Your task to perform on an android device: Search for acer nitro on costco.com, select the first entry, add it to the cart, then select checkout. Image 0: 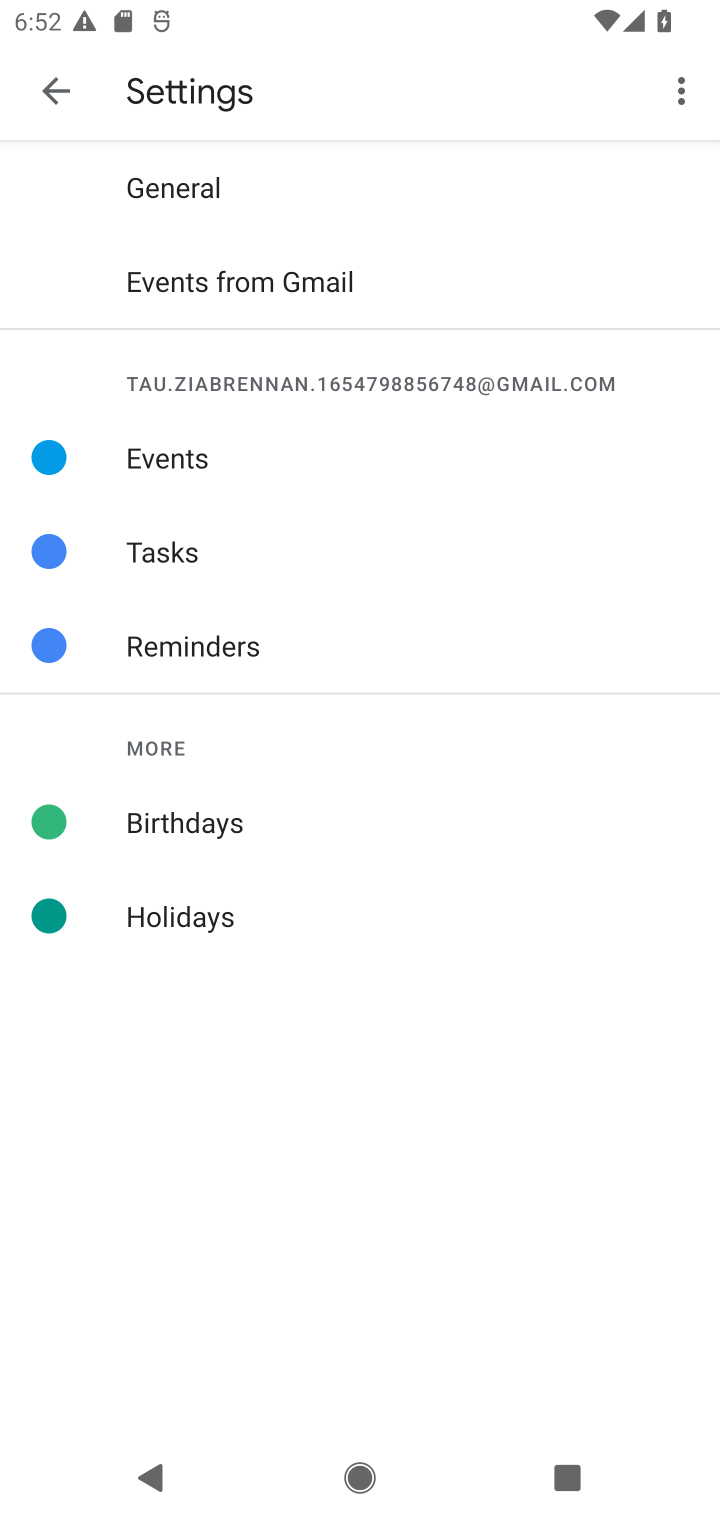
Step 0: press home button
Your task to perform on an android device: Search for acer nitro on costco.com, select the first entry, add it to the cart, then select checkout. Image 1: 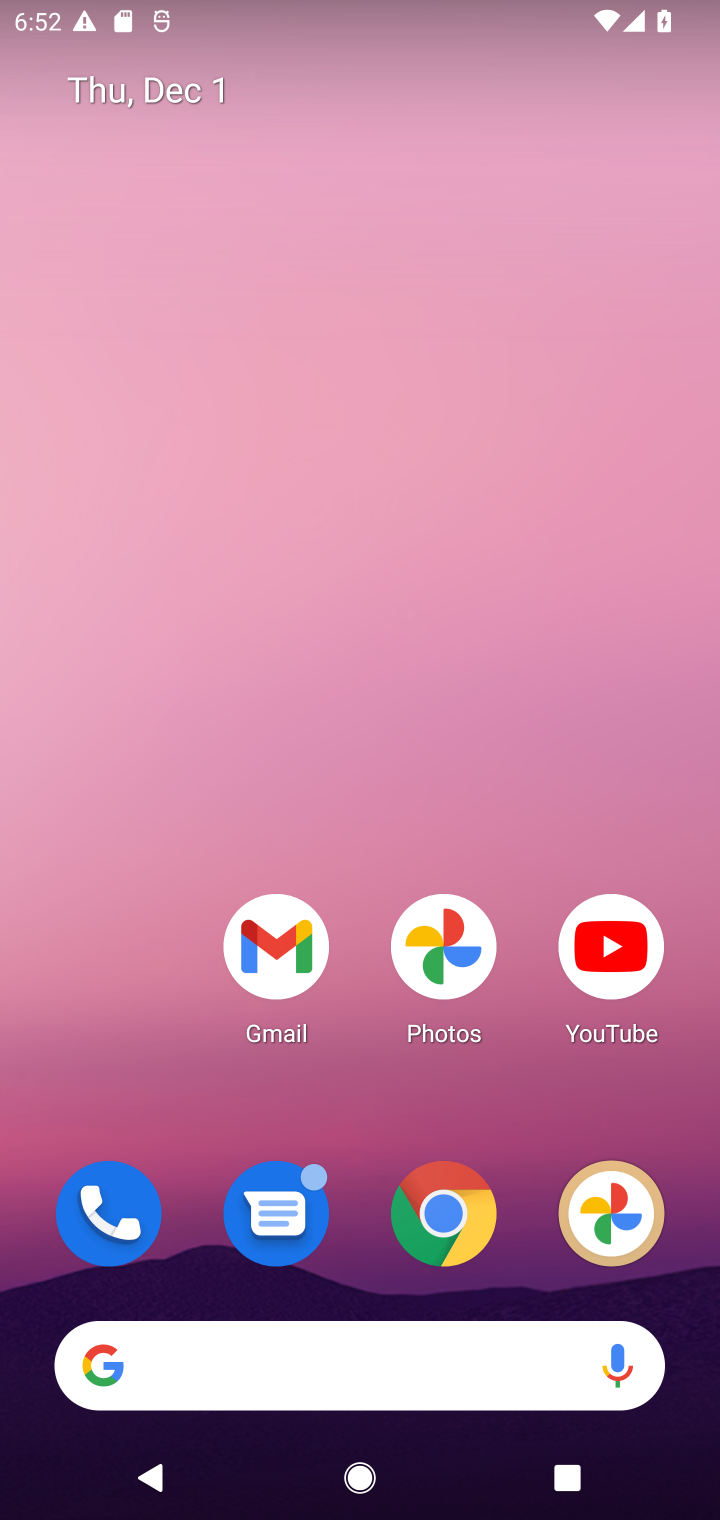
Step 1: click (431, 1363)
Your task to perform on an android device: Search for acer nitro on costco.com, select the first entry, add it to the cart, then select checkout. Image 2: 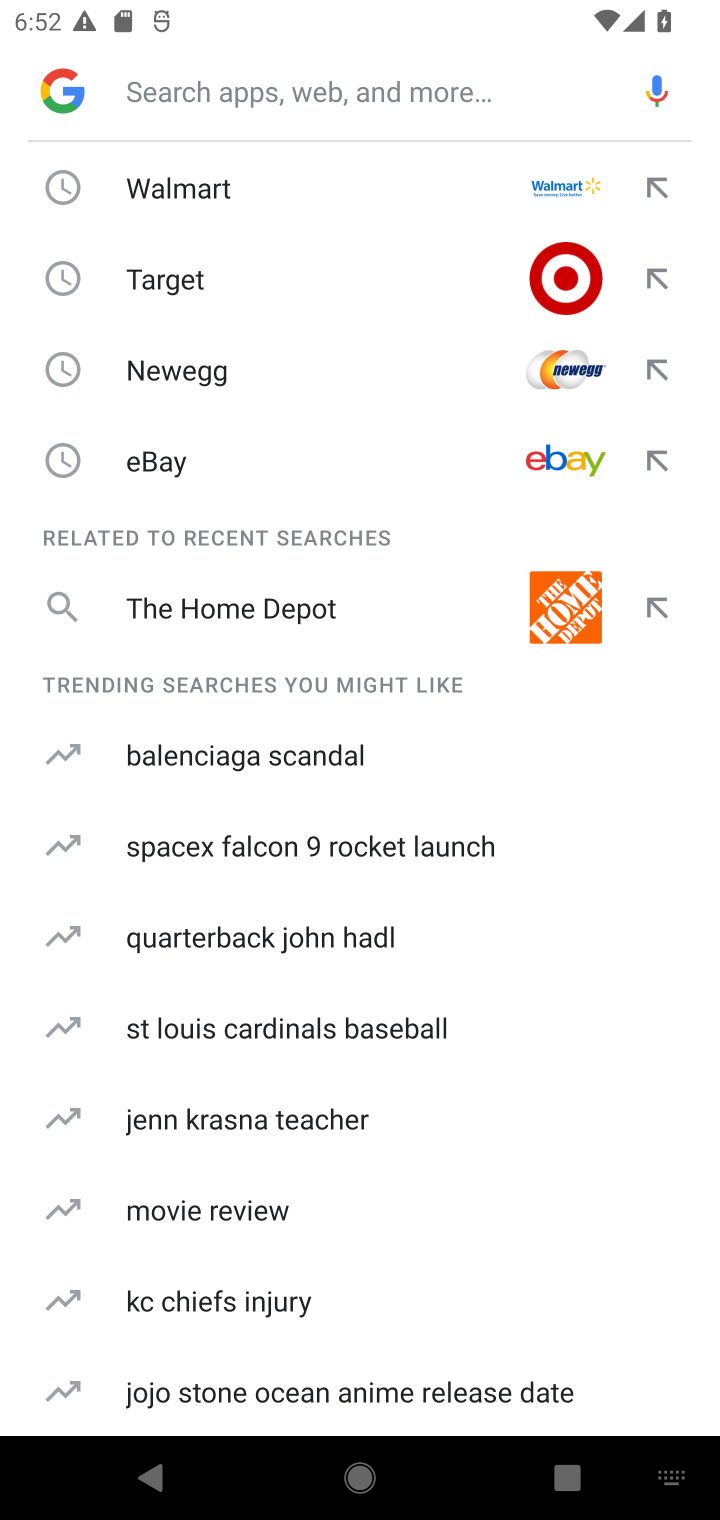
Step 2: type "costco"
Your task to perform on an android device: Search for acer nitro on costco.com, select the first entry, add it to the cart, then select checkout. Image 3: 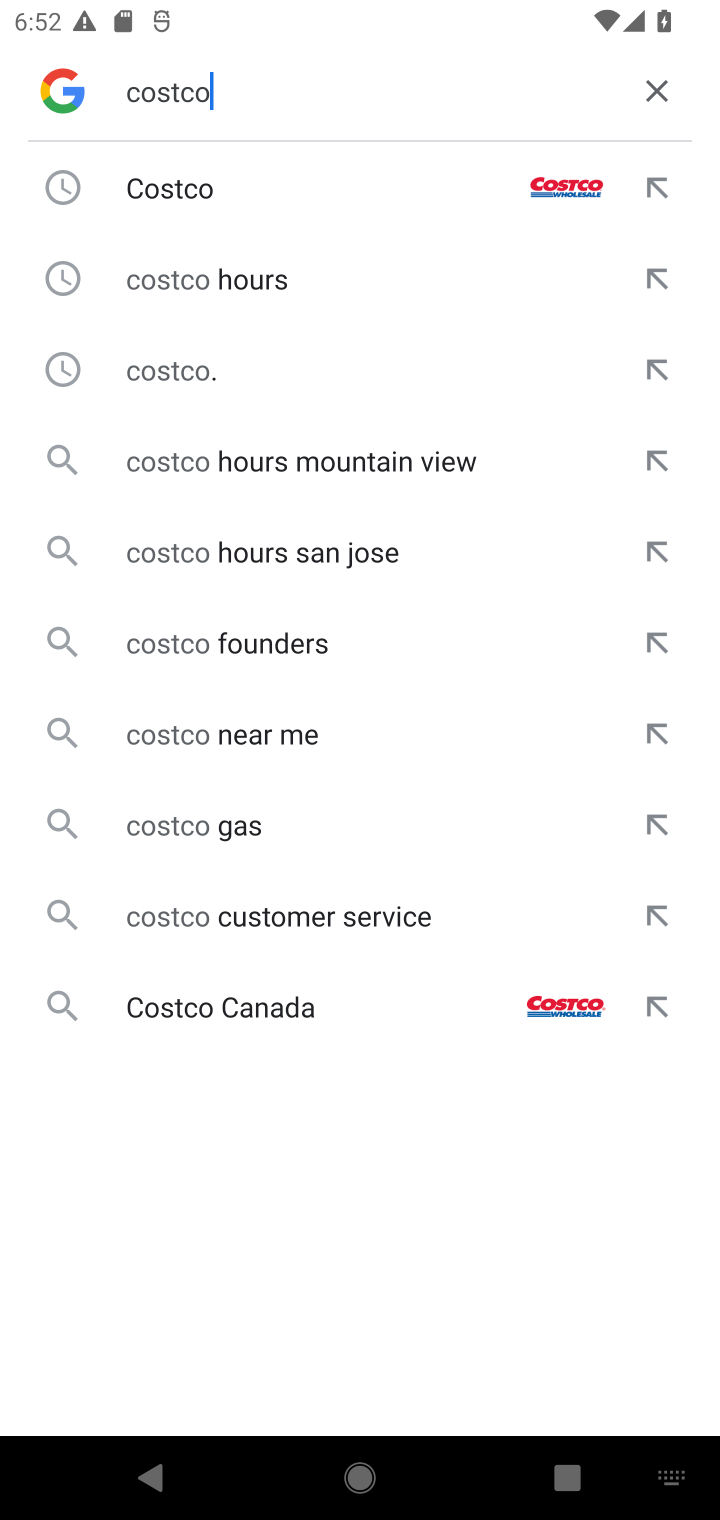
Step 3: click (186, 201)
Your task to perform on an android device: Search for acer nitro on costco.com, select the first entry, add it to the cart, then select checkout. Image 4: 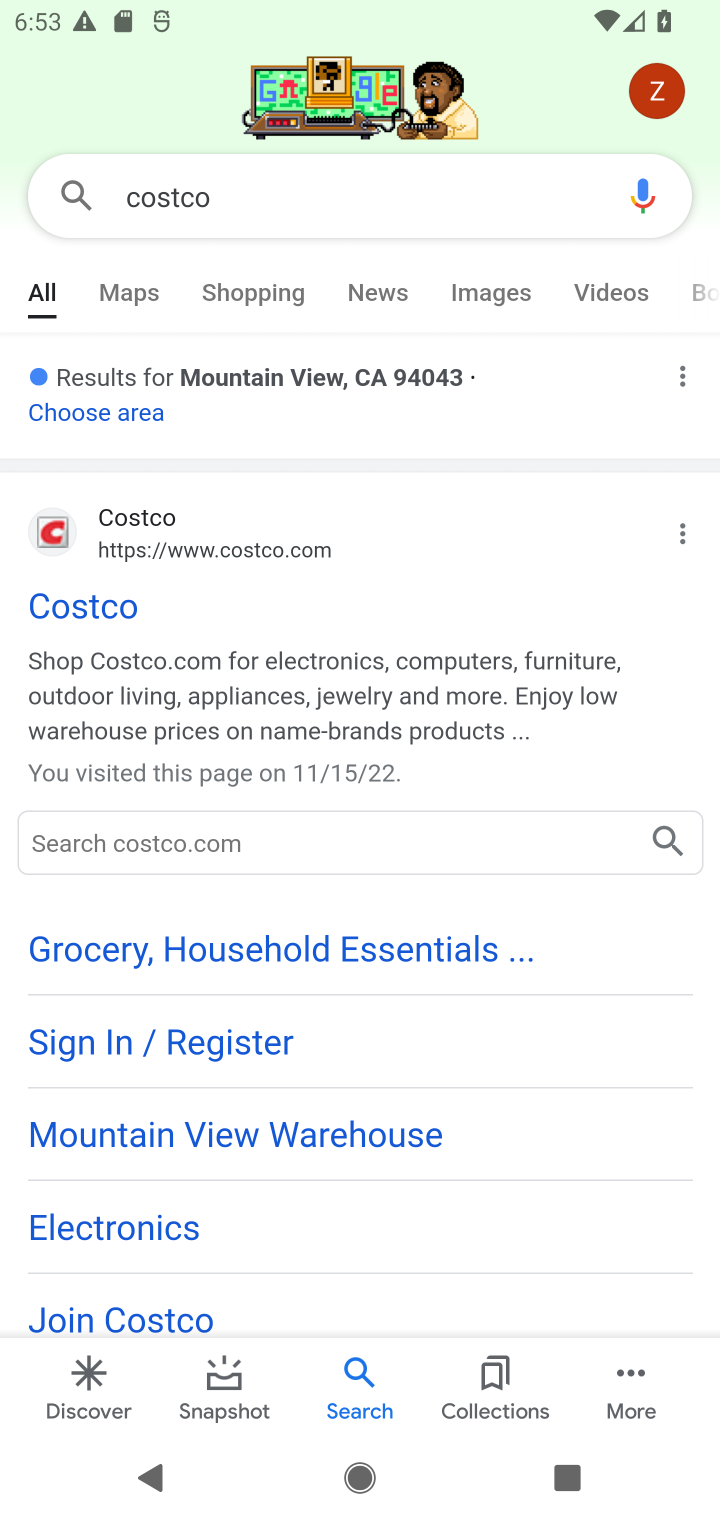
Step 4: click (84, 614)
Your task to perform on an android device: Search for acer nitro on costco.com, select the first entry, add it to the cart, then select checkout. Image 5: 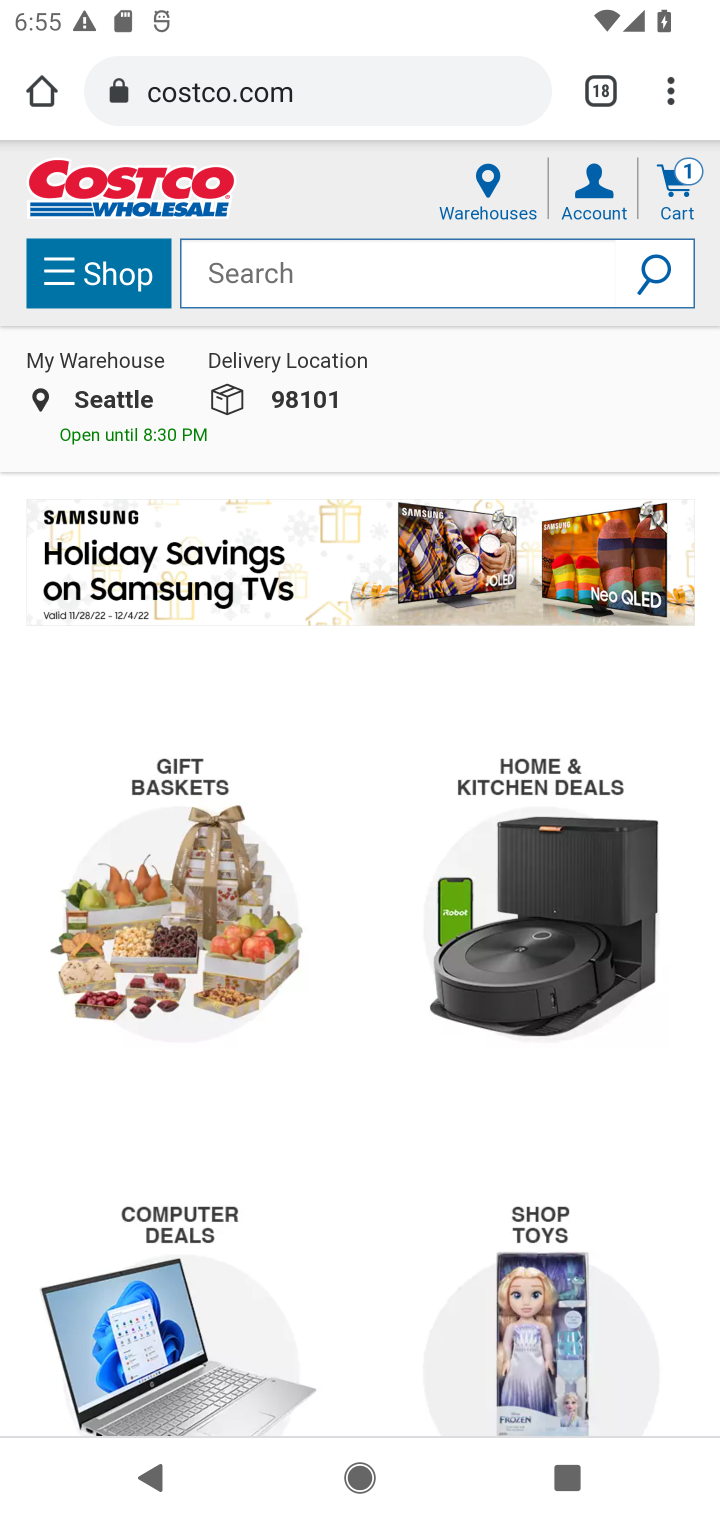
Step 5: task complete